Your task to perform on an android device: Open Chrome and go to settings Image 0: 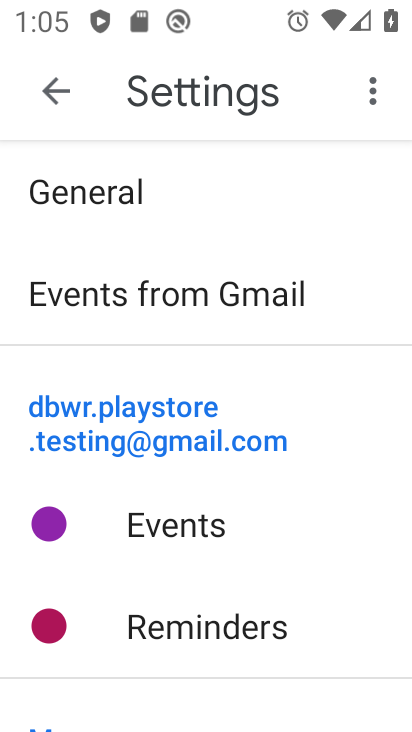
Step 0: press home button
Your task to perform on an android device: Open Chrome and go to settings Image 1: 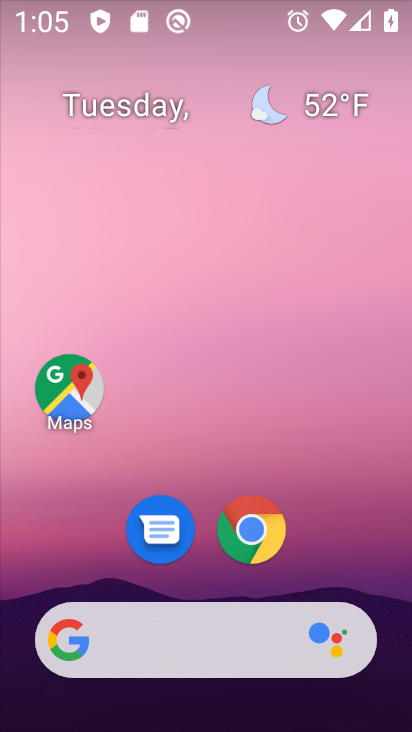
Step 1: click (404, 339)
Your task to perform on an android device: Open Chrome and go to settings Image 2: 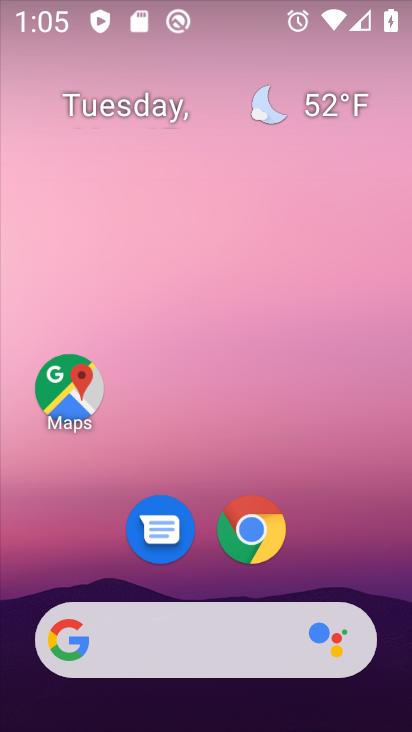
Step 2: click (250, 545)
Your task to perform on an android device: Open Chrome and go to settings Image 3: 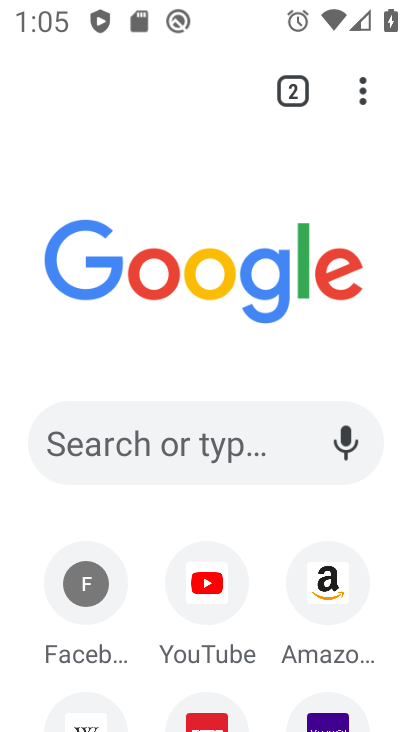
Step 3: click (367, 103)
Your task to perform on an android device: Open Chrome and go to settings Image 4: 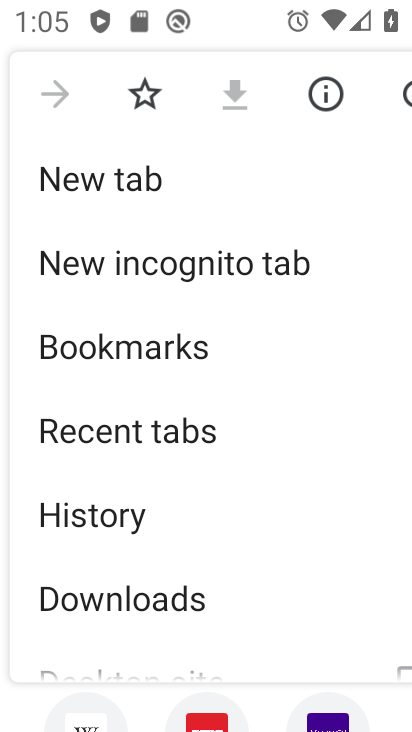
Step 4: drag from (128, 519) to (139, 122)
Your task to perform on an android device: Open Chrome and go to settings Image 5: 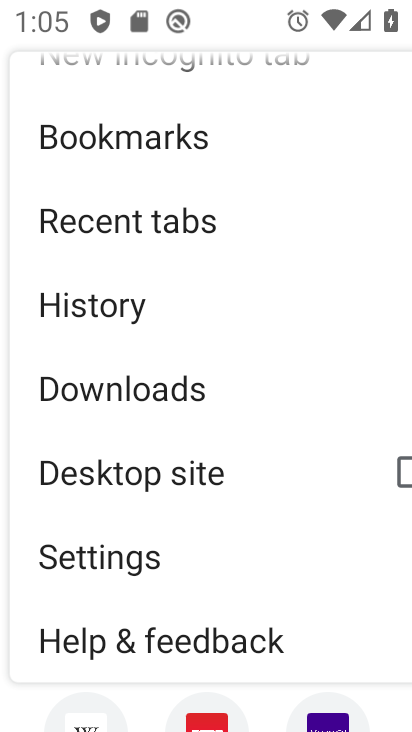
Step 5: click (107, 557)
Your task to perform on an android device: Open Chrome and go to settings Image 6: 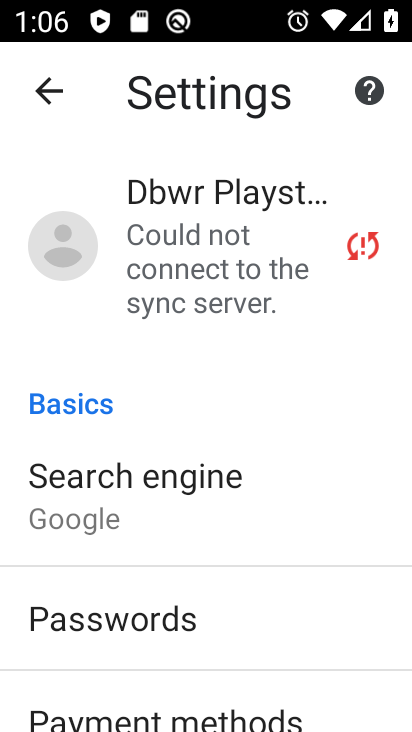
Step 6: task complete